Your task to perform on an android device: check google app version Image 0: 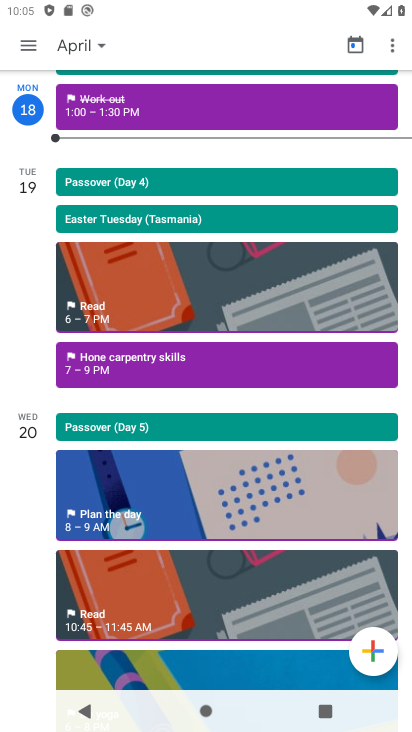
Step 0: press back button
Your task to perform on an android device: check google app version Image 1: 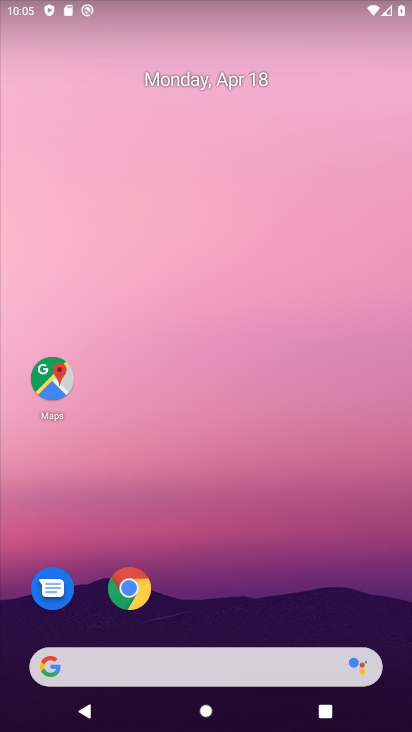
Step 1: drag from (211, 437) to (155, 20)
Your task to perform on an android device: check google app version Image 2: 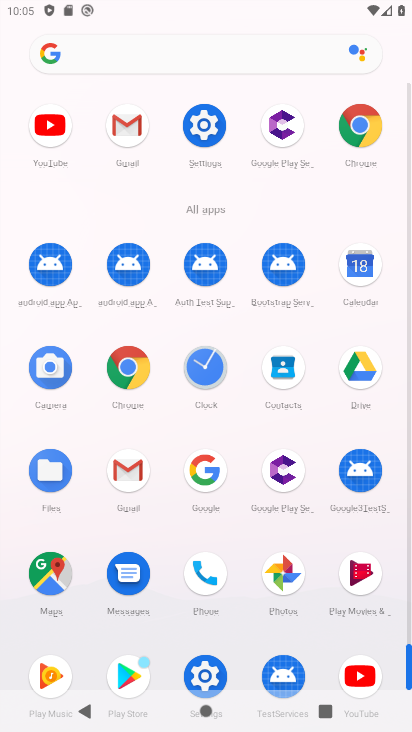
Step 2: click (203, 467)
Your task to perform on an android device: check google app version Image 3: 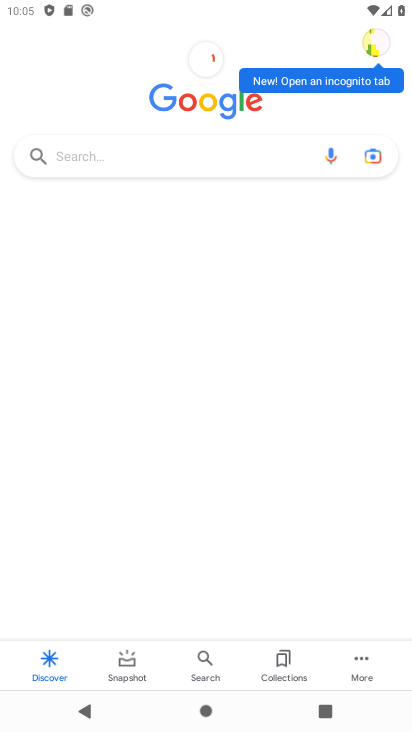
Step 3: click (369, 661)
Your task to perform on an android device: check google app version Image 4: 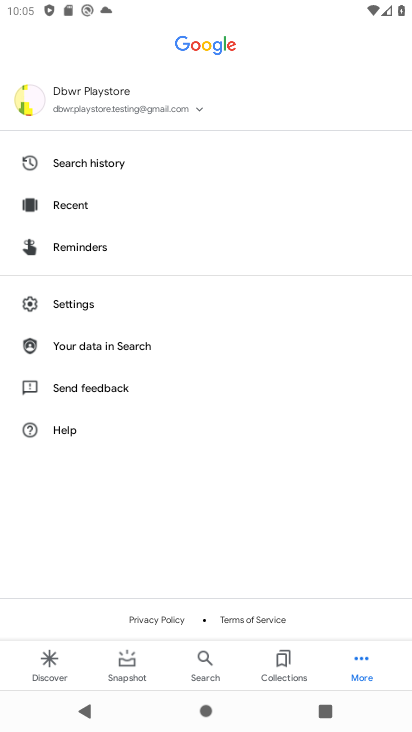
Step 4: click (89, 307)
Your task to perform on an android device: check google app version Image 5: 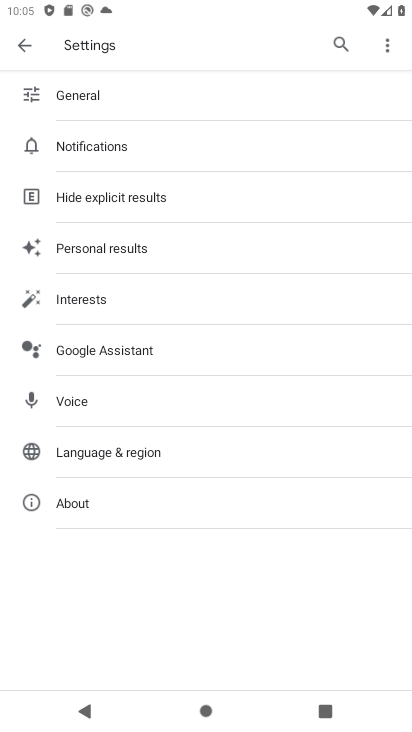
Step 5: click (103, 477)
Your task to perform on an android device: check google app version Image 6: 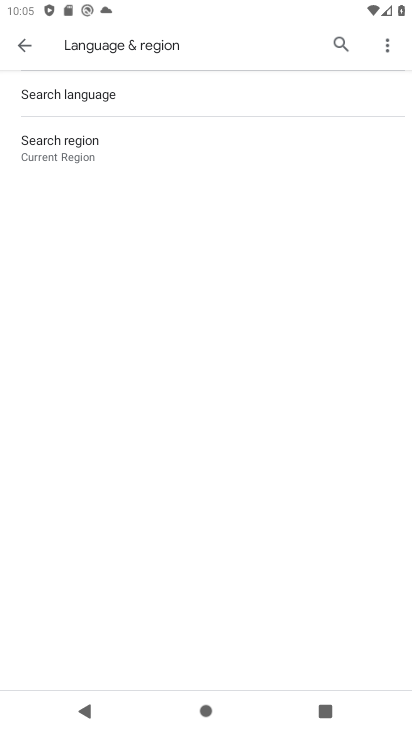
Step 6: press back button
Your task to perform on an android device: check google app version Image 7: 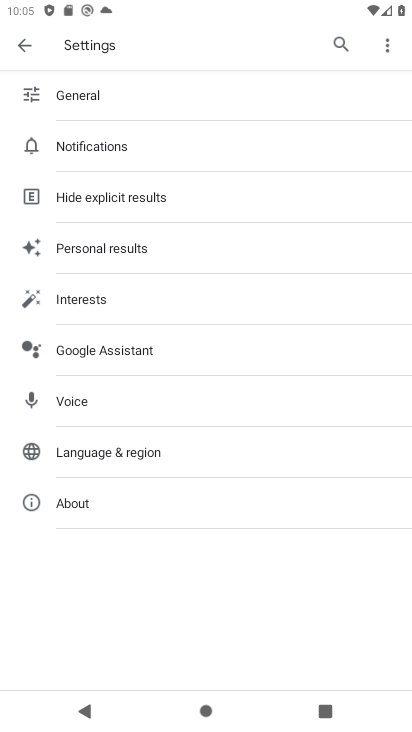
Step 7: click (64, 514)
Your task to perform on an android device: check google app version Image 8: 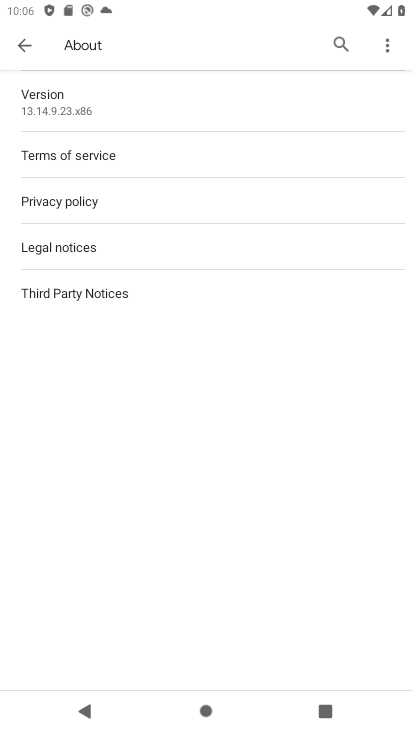
Step 8: task complete